Your task to perform on an android device: turn off picture-in-picture Image 0: 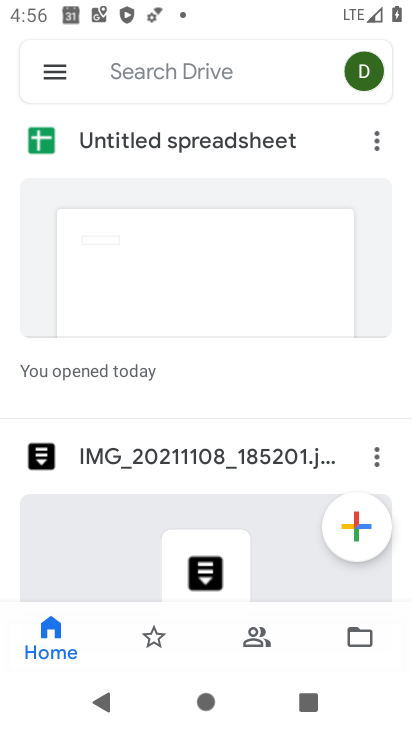
Step 0: press home button
Your task to perform on an android device: turn off picture-in-picture Image 1: 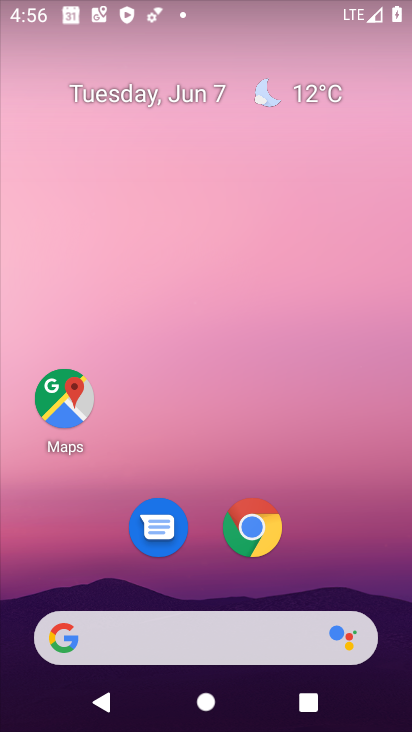
Step 1: click (252, 527)
Your task to perform on an android device: turn off picture-in-picture Image 2: 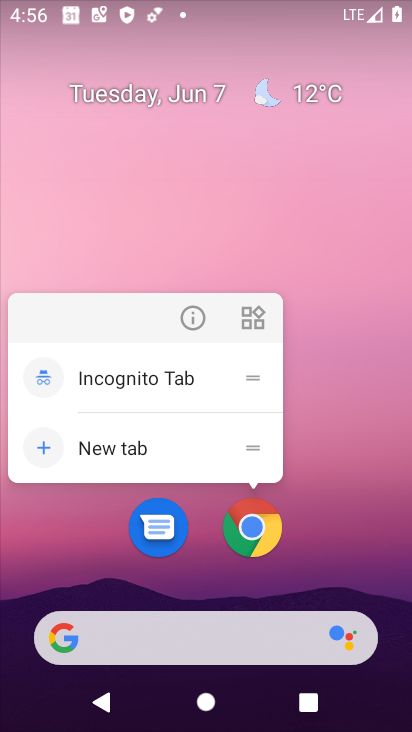
Step 2: click (191, 321)
Your task to perform on an android device: turn off picture-in-picture Image 3: 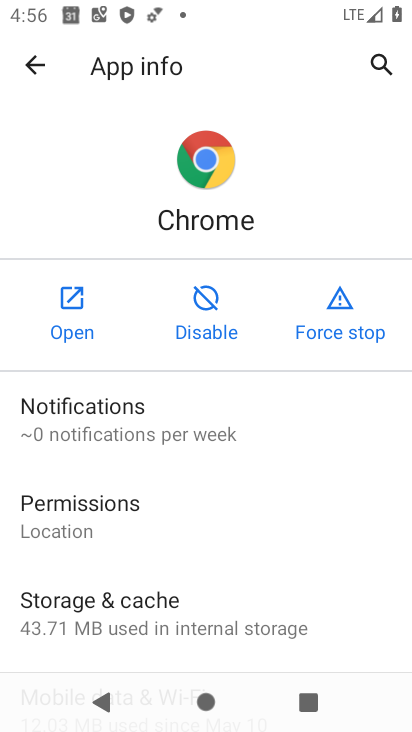
Step 3: drag from (194, 582) to (227, 250)
Your task to perform on an android device: turn off picture-in-picture Image 4: 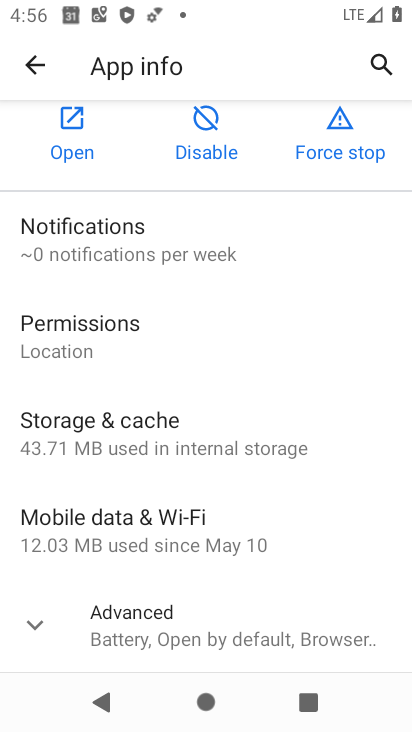
Step 4: click (133, 632)
Your task to perform on an android device: turn off picture-in-picture Image 5: 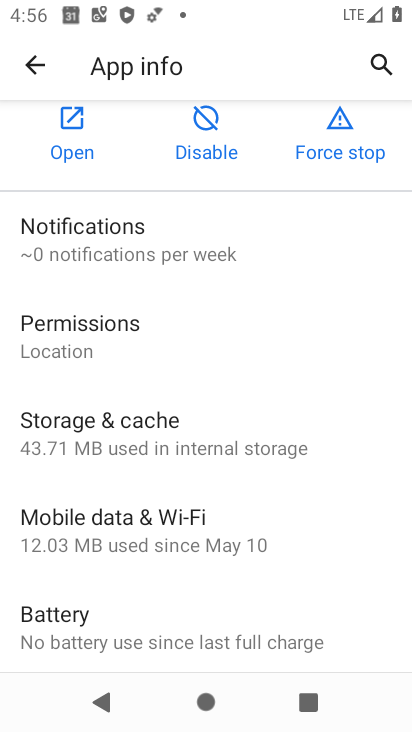
Step 5: drag from (144, 599) to (233, 155)
Your task to perform on an android device: turn off picture-in-picture Image 6: 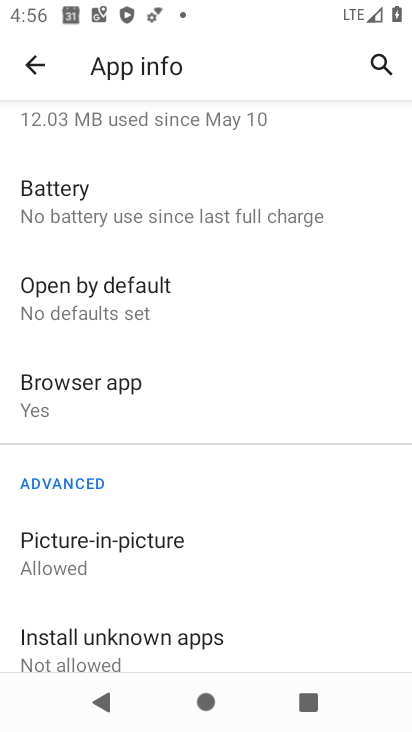
Step 6: click (71, 546)
Your task to perform on an android device: turn off picture-in-picture Image 7: 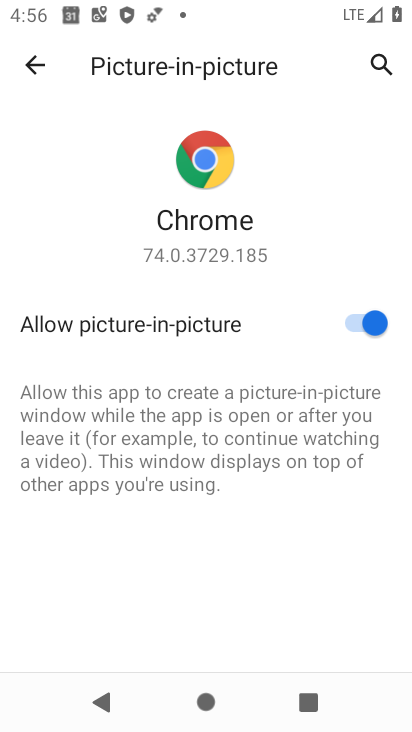
Step 7: click (355, 318)
Your task to perform on an android device: turn off picture-in-picture Image 8: 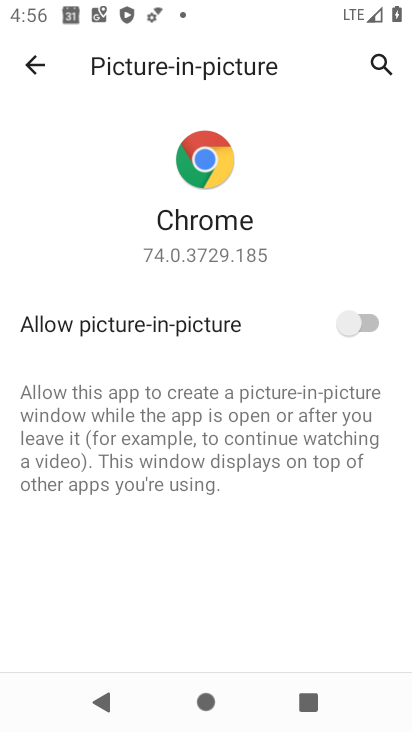
Step 8: task complete